Your task to perform on an android device: delete browsing data in the chrome app Image 0: 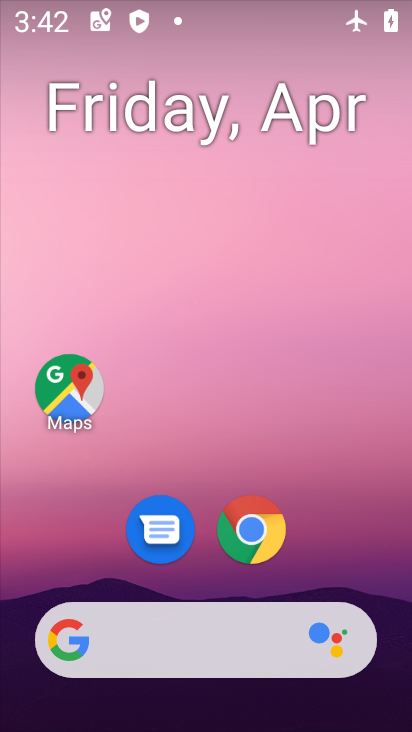
Step 0: click (254, 524)
Your task to perform on an android device: delete browsing data in the chrome app Image 1: 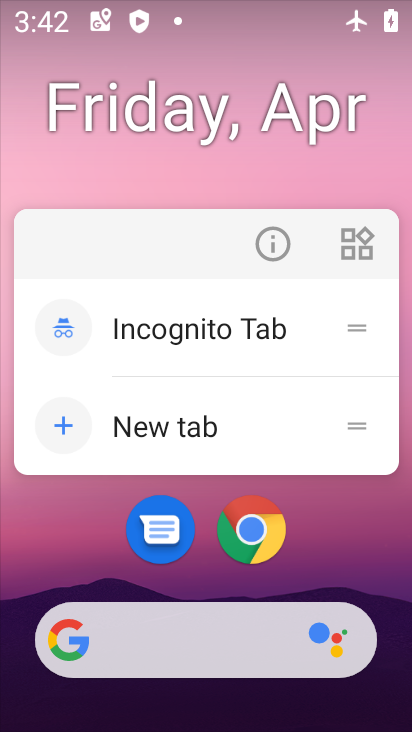
Step 1: click (225, 529)
Your task to perform on an android device: delete browsing data in the chrome app Image 2: 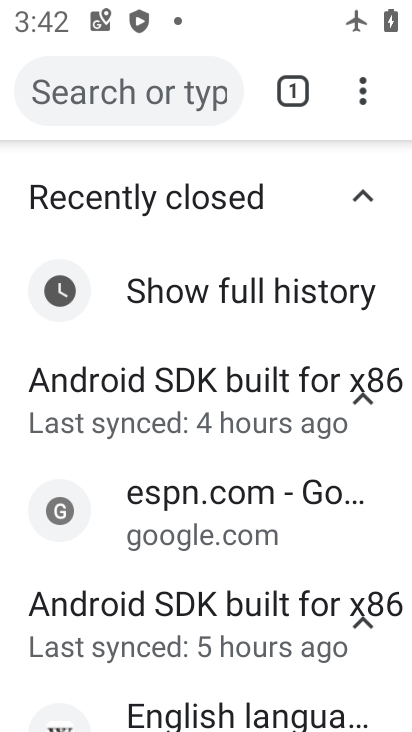
Step 2: click (356, 90)
Your task to perform on an android device: delete browsing data in the chrome app Image 3: 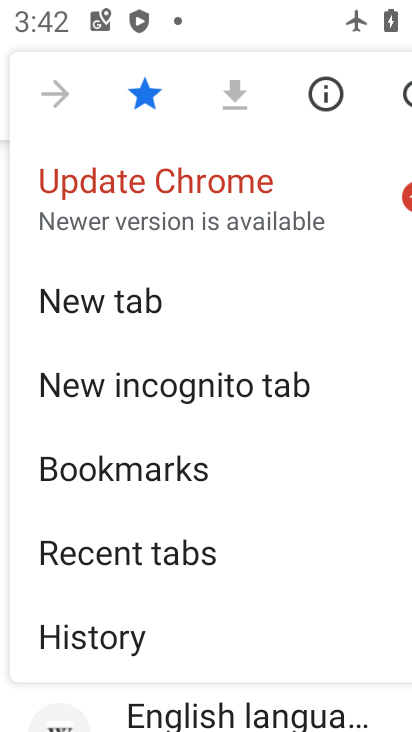
Step 3: click (153, 631)
Your task to perform on an android device: delete browsing data in the chrome app Image 4: 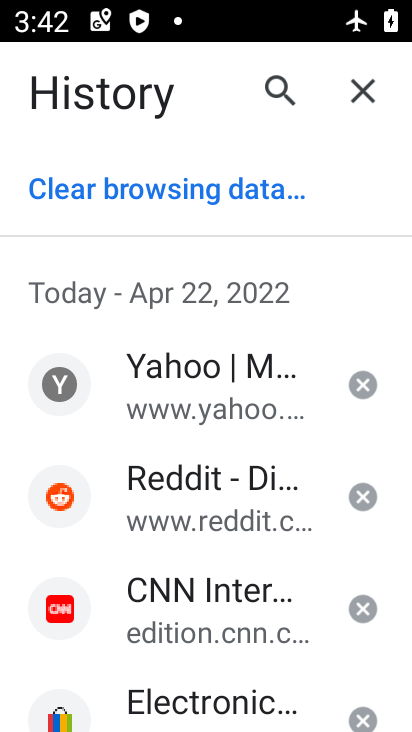
Step 4: click (165, 203)
Your task to perform on an android device: delete browsing data in the chrome app Image 5: 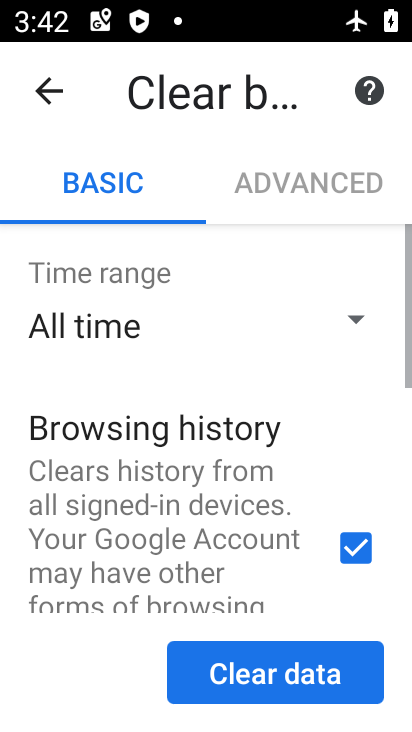
Step 5: click (255, 658)
Your task to perform on an android device: delete browsing data in the chrome app Image 6: 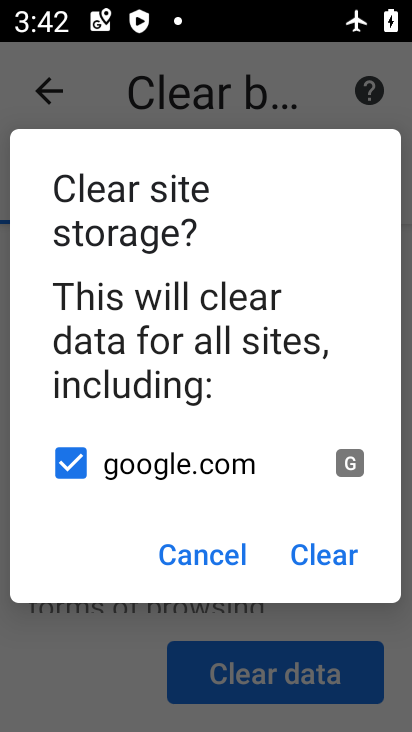
Step 6: click (312, 567)
Your task to perform on an android device: delete browsing data in the chrome app Image 7: 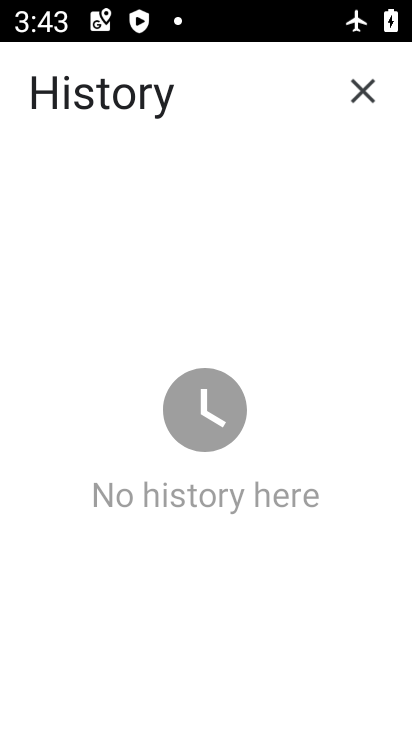
Step 7: task complete